Your task to perform on an android device: Open calendar and show me the second week of next month Image 0: 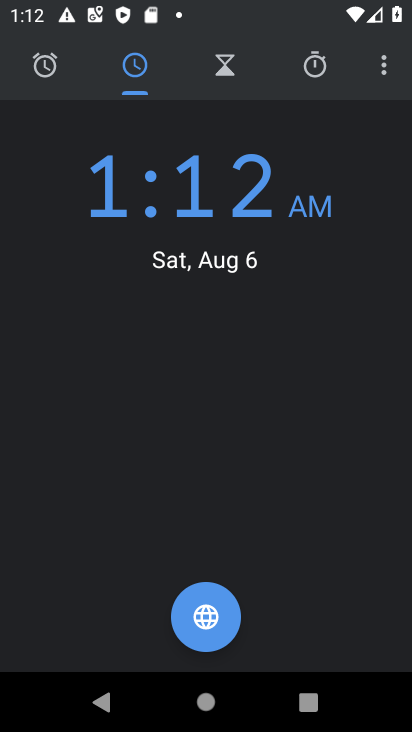
Step 0: click (390, 67)
Your task to perform on an android device: Open calendar and show me the second week of next month Image 1: 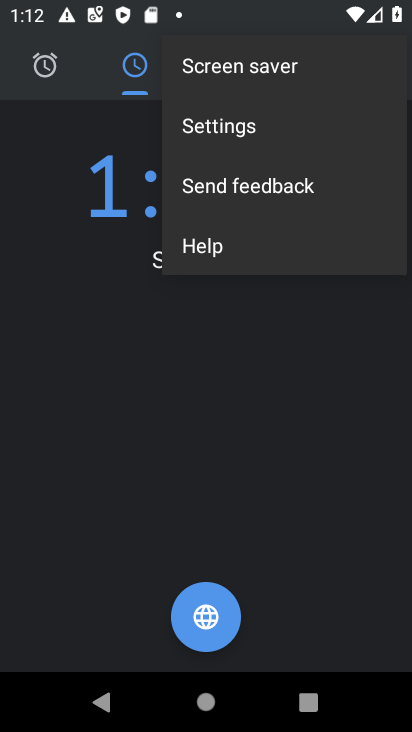
Step 1: click (268, 124)
Your task to perform on an android device: Open calendar and show me the second week of next month Image 2: 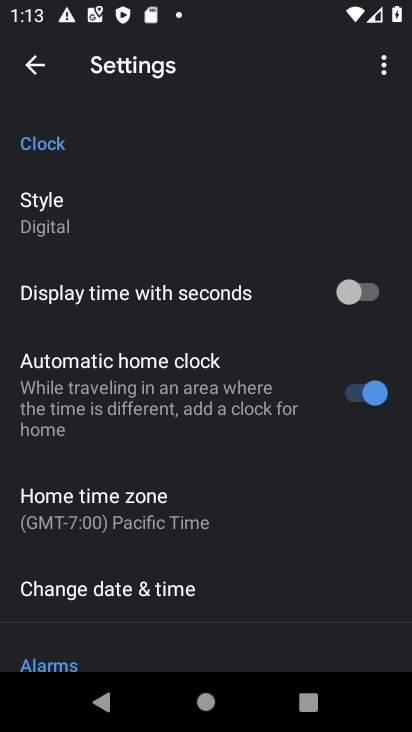
Step 2: press home button
Your task to perform on an android device: Open calendar and show me the second week of next month Image 3: 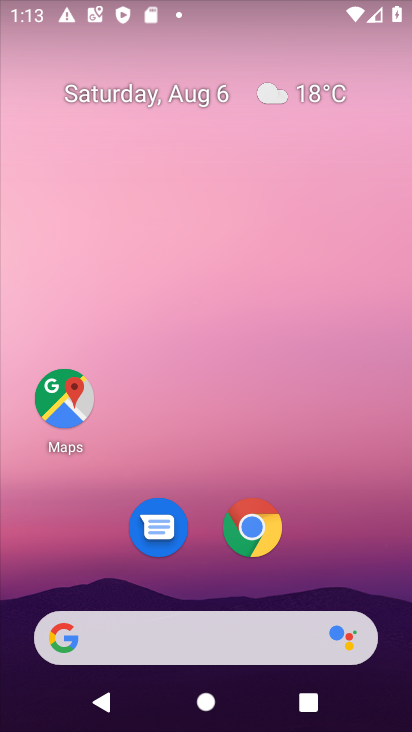
Step 3: drag from (226, 535) to (238, 175)
Your task to perform on an android device: Open calendar and show me the second week of next month Image 4: 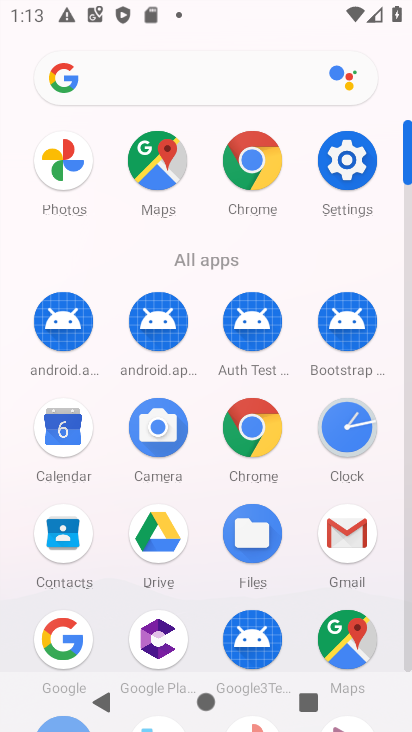
Step 4: click (68, 445)
Your task to perform on an android device: Open calendar and show me the second week of next month Image 5: 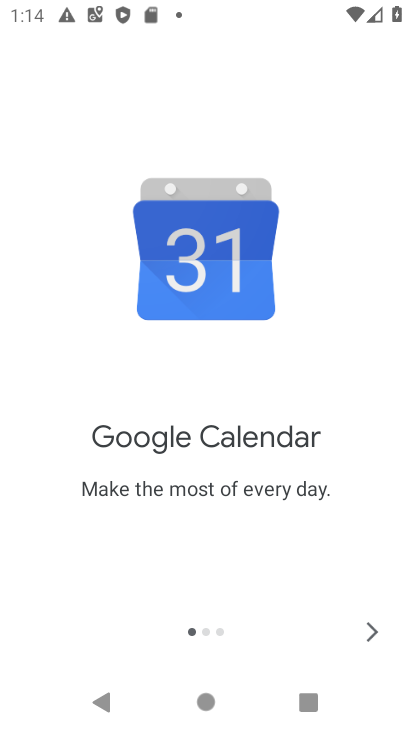
Step 5: click (370, 635)
Your task to perform on an android device: Open calendar and show me the second week of next month Image 6: 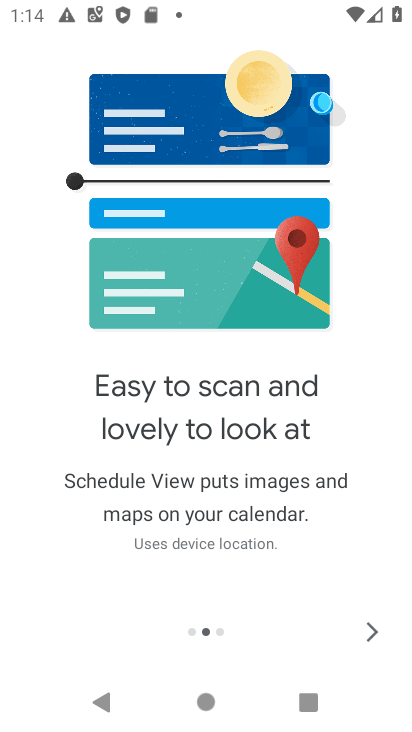
Step 6: click (370, 635)
Your task to perform on an android device: Open calendar and show me the second week of next month Image 7: 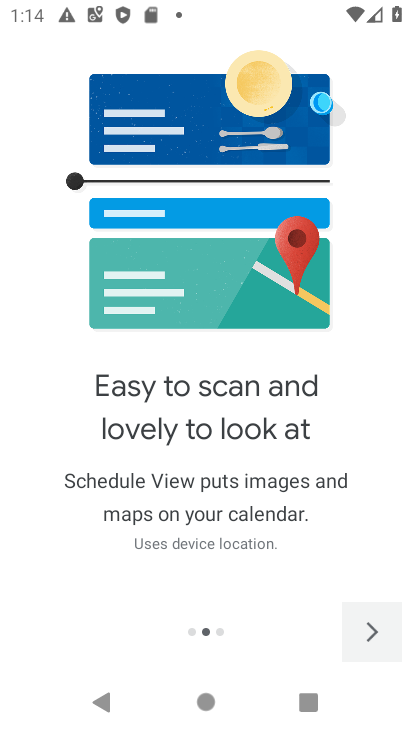
Step 7: click (370, 635)
Your task to perform on an android device: Open calendar and show me the second week of next month Image 8: 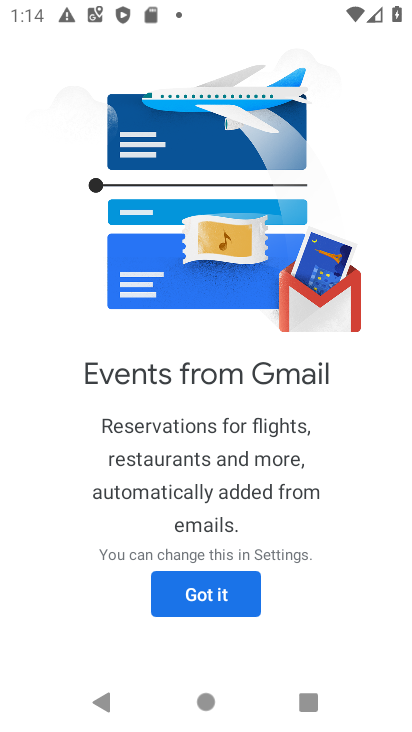
Step 8: click (370, 635)
Your task to perform on an android device: Open calendar and show me the second week of next month Image 9: 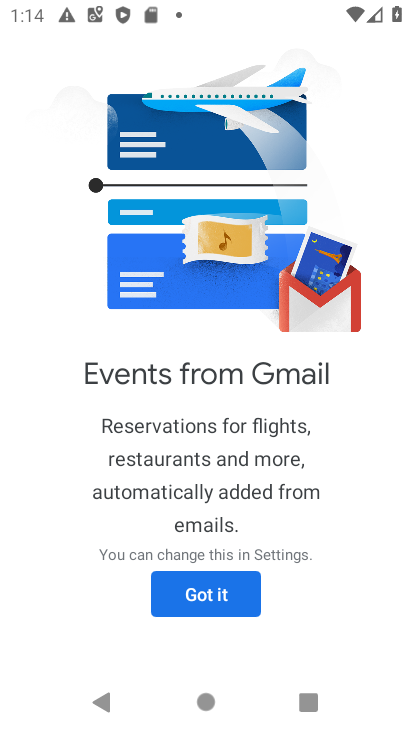
Step 9: click (214, 604)
Your task to perform on an android device: Open calendar and show me the second week of next month Image 10: 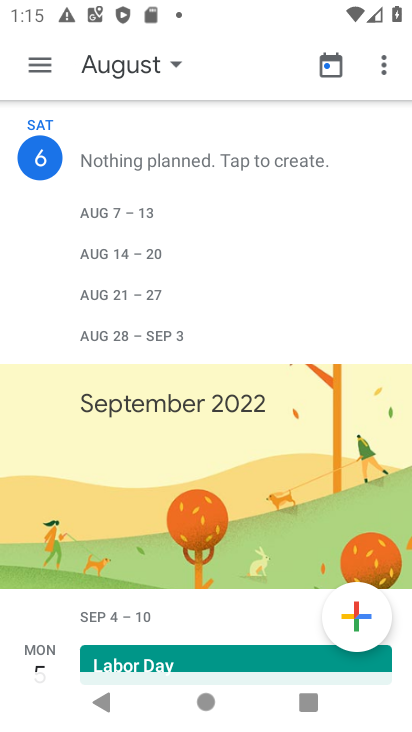
Step 10: click (145, 80)
Your task to perform on an android device: Open calendar and show me the second week of next month Image 11: 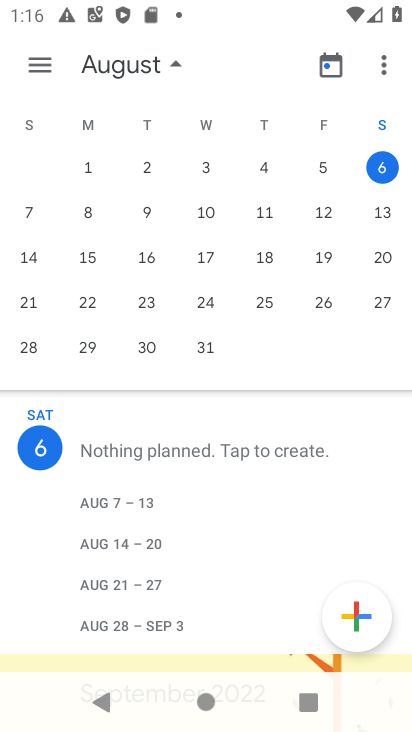
Step 11: click (135, 57)
Your task to perform on an android device: Open calendar and show me the second week of next month Image 12: 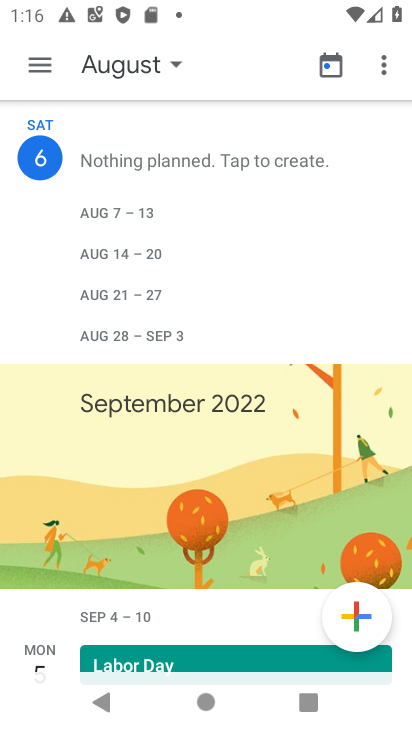
Step 12: click (162, 64)
Your task to perform on an android device: Open calendar and show me the second week of next month Image 13: 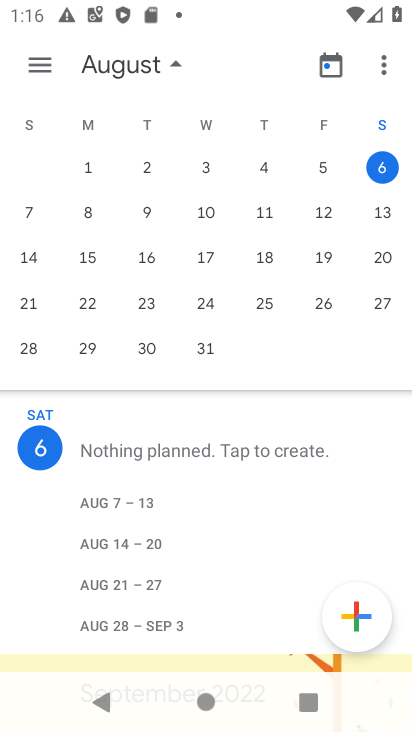
Step 13: drag from (260, 257) to (0, 250)
Your task to perform on an android device: Open calendar and show me the second week of next month Image 14: 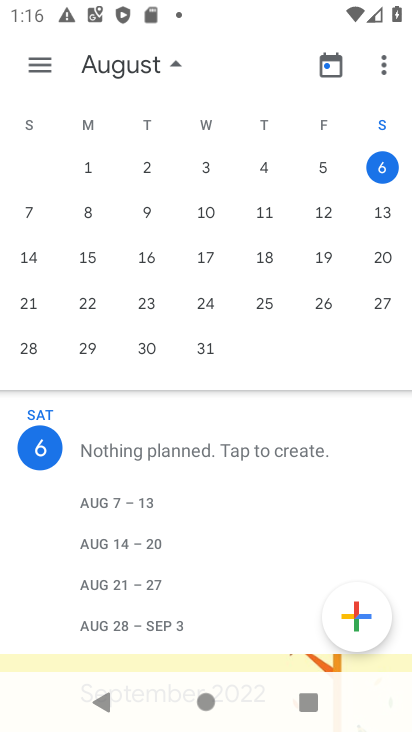
Step 14: drag from (300, 183) to (2, 232)
Your task to perform on an android device: Open calendar and show me the second week of next month Image 15: 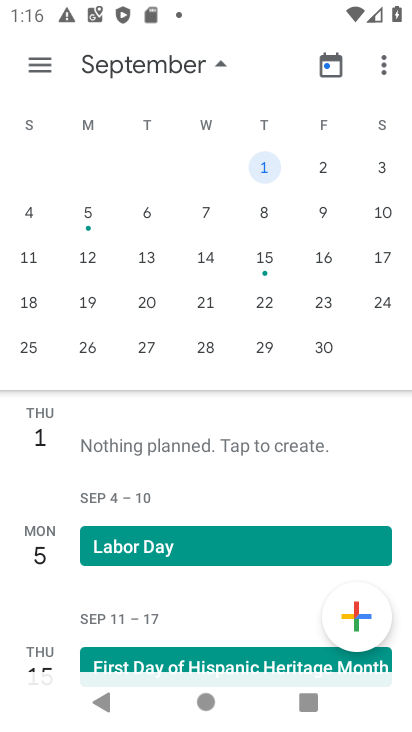
Step 15: click (31, 261)
Your task to perform on an android device: Open calendar and show me the second week of next month Image 16: 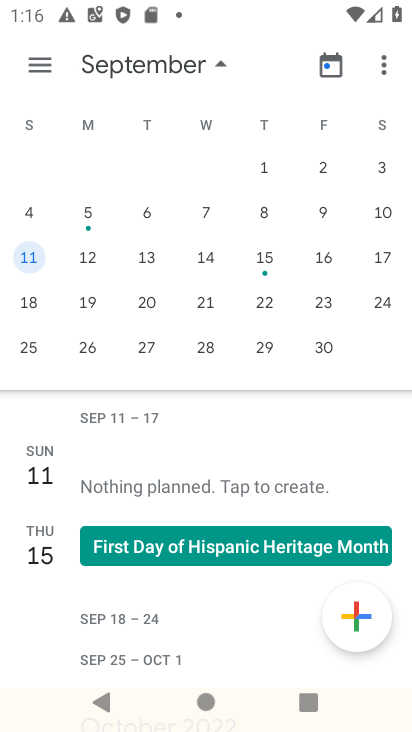
Step 16: click (36, 60)
Your task to perform on an android device: Open calendar and show me the second week of next month Image 17: 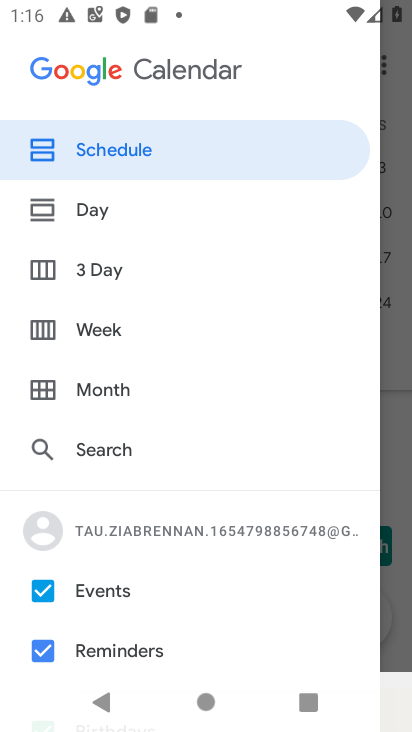
Step 17: click (92, 326)
Your task to perform on an android device: Open calendar and show me the second week of next month Image 18: 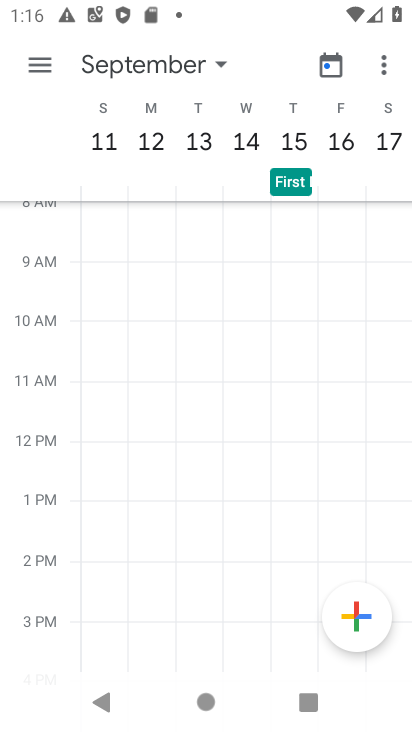
Step 18: task complete